Your task to perform on an android device: change the clock display to digital Image 0: 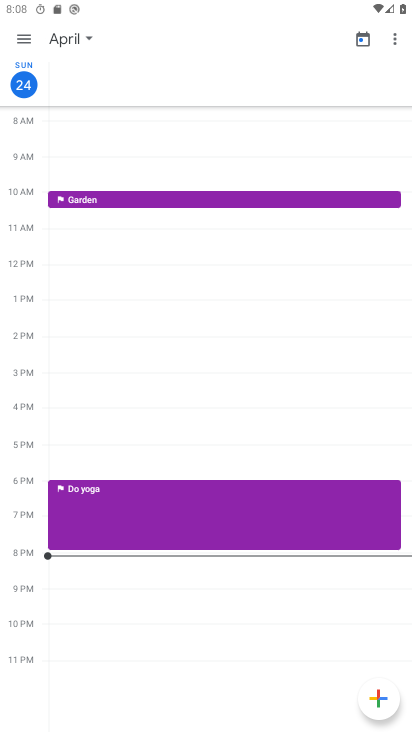
Step 0: press home button
Your task to perform on an android device: change the clock display to digital Image 1: 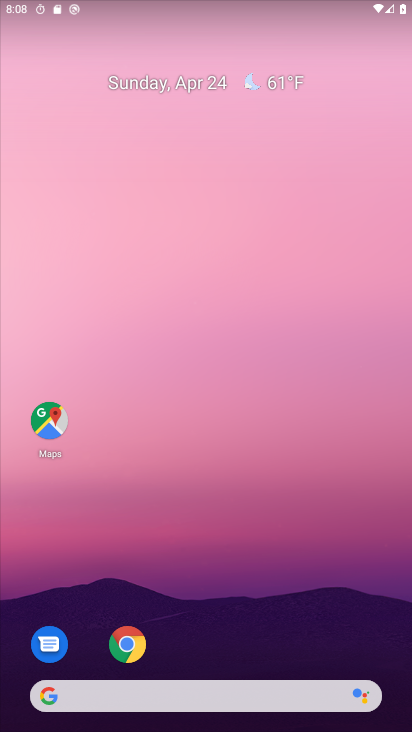
Step 1: drag from (201, 620) to (237, 131)
Your task to perform on an android device: change the clock display to digital Image 2: 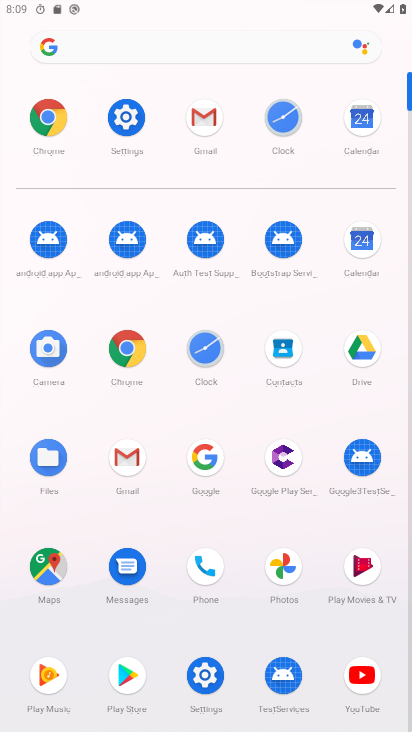
Step 2: click (207, 344)
Your task to perform on an android device: change the clock display to digital Image 3: 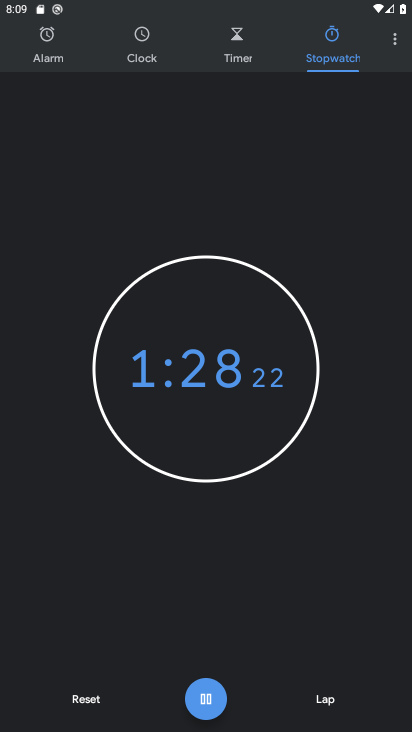
Step 3: click (89, 690)
Your task to perform on an android device: change the clock display to digital Image 4: 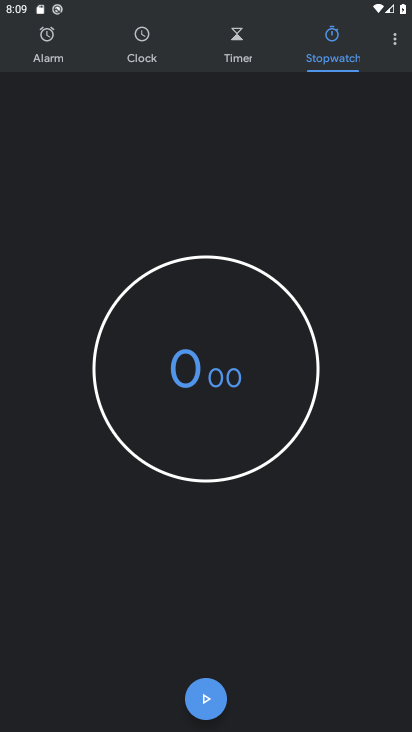
Step 4: click (393, 43)
Your task to perform on an android device: change the clock display to digital Image 5: 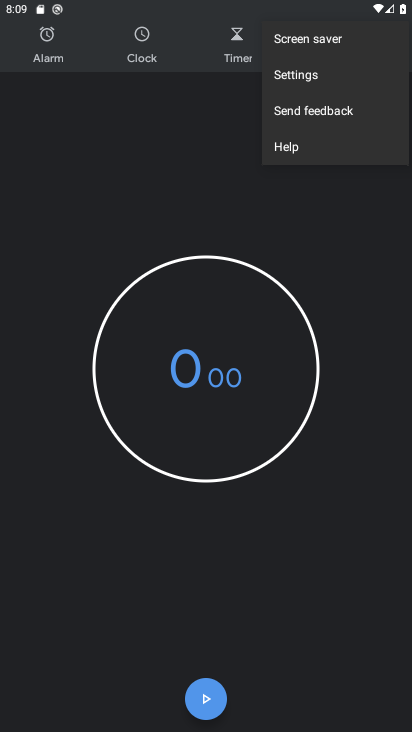
Step 5: click (321, 76)
Your task to perform on an android device: change the clock display to digital Image 6: 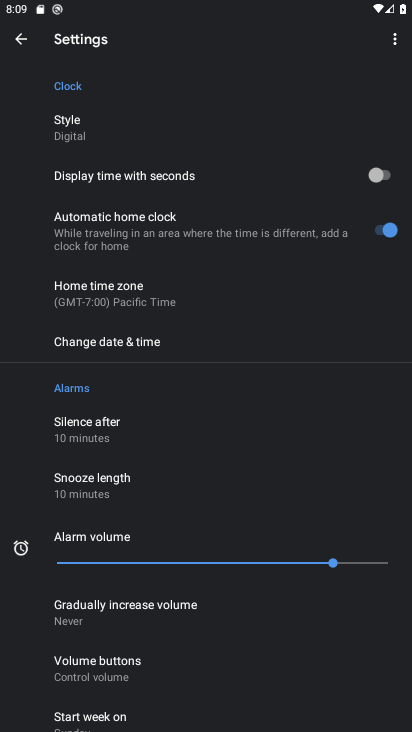
Step 6: click (103, 130)
Your task to perform on an android device: change the clock display to digital Image 7: 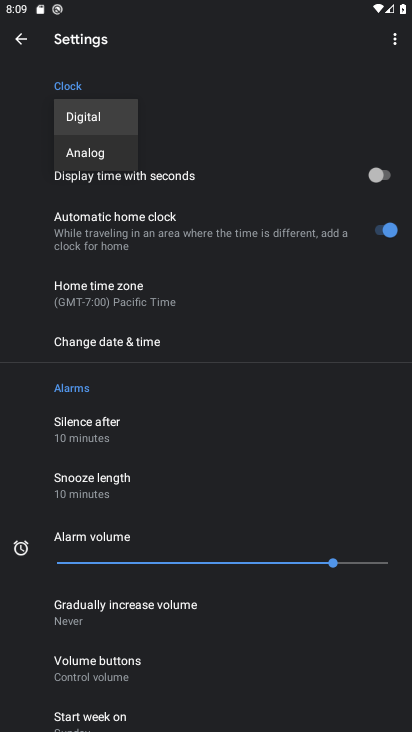
Step 7: click (111, 127)
Your task to perform on an android device: change the clock display to digital Image 8: 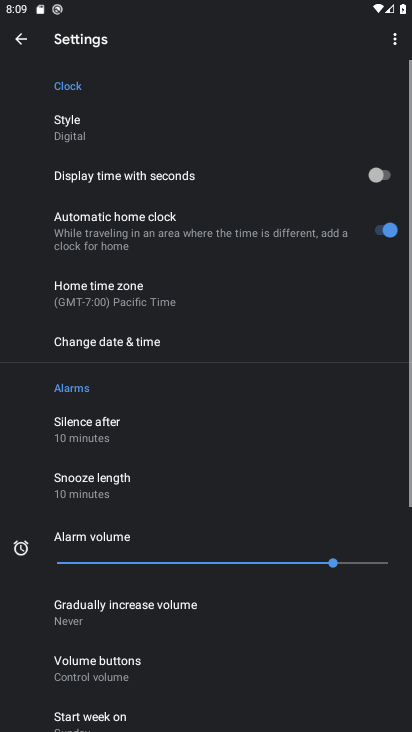
Step 8: task complete